Your task to perform on an android device: Open wifi settings Image 0: 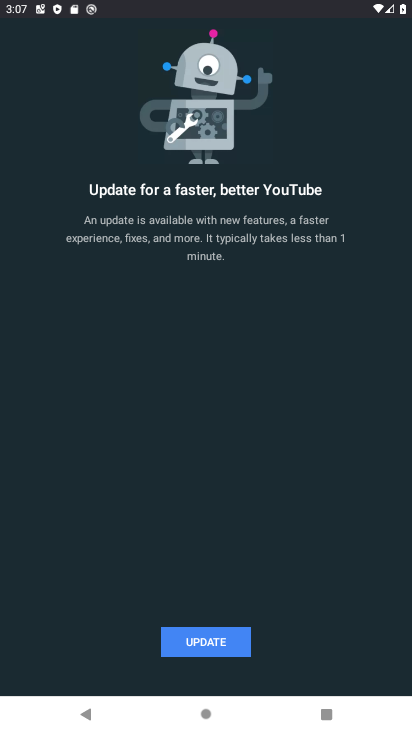
Step 0: press home button
Your task to perform on an android device: Open wifi settings Image 1: 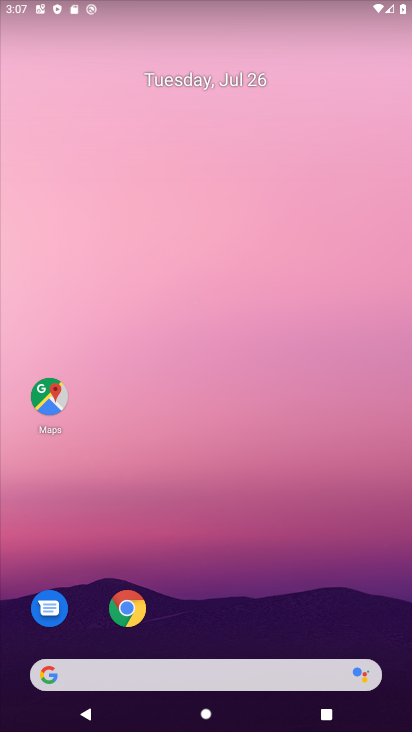
Step 1: drag from (258, 479) to (269, 37)
Your task to perform on an android device: Open wifi settings Image 2: 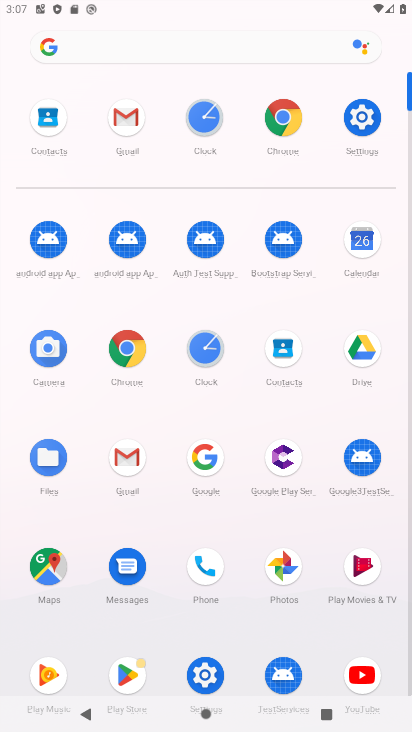
Step 2: click (360, 118)
Your task to perform on an android device: Open wifi settings Image 3: 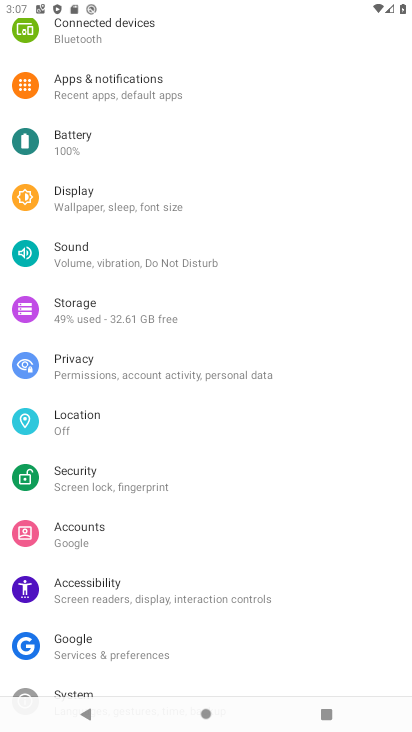
Step 3: drag from (222, 201) to (245, 460)
Your task to perform on an android device: Open wifi settings Image 4: 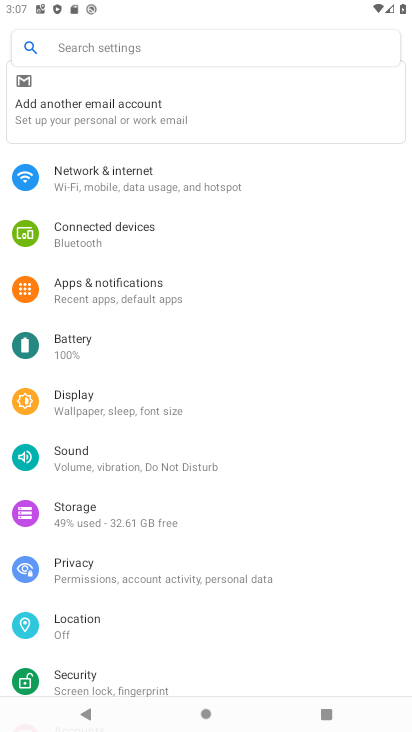
Step 4: click (169, 171)
Your task to perform on an android device: Open wifi settings Image 5: 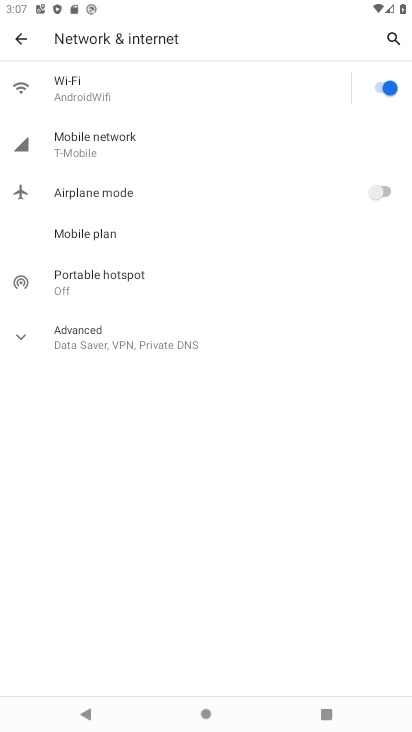
Step 5: task complete